Your task to perform on an android device: Go to Reddit.com Image 0: 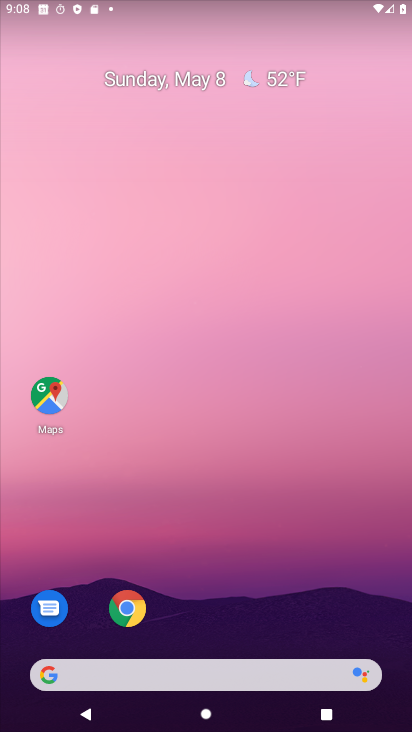
Step 0: drag from (351, 644) to (270, 38)
Your task to perform on an android device: Go to Reddit.com Image 1: 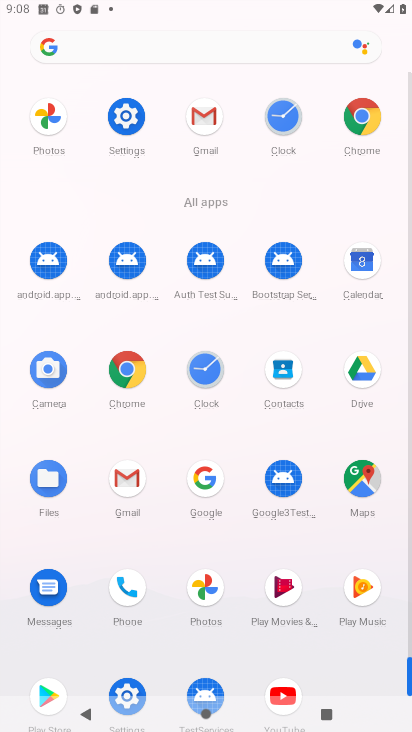
Step 1: click (127, 362)
Your task to perform on an android device: Go to Reddit.com Image 2: 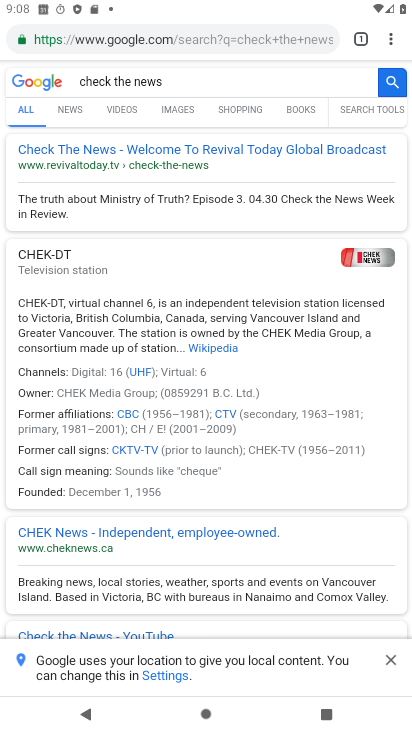
Step 2: click (229, 43)
Your task to perform on an android device: Go to Reddit.com Image 3: 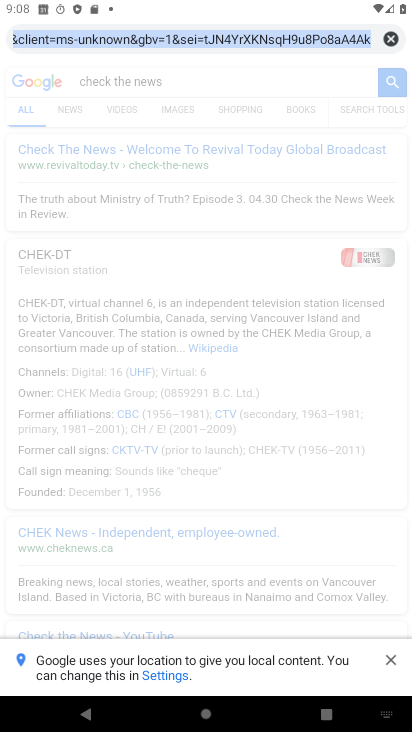
Step 3: click (382, 36)
Your task to perform on an android device: Go to Reddit.com Image 4: 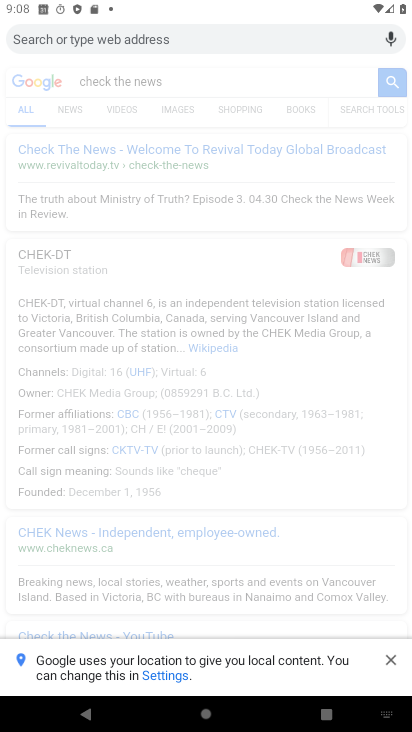
Step 4: type "reddit.com"
Your task to perform on an android device: Go to Reddit.com Image 5: 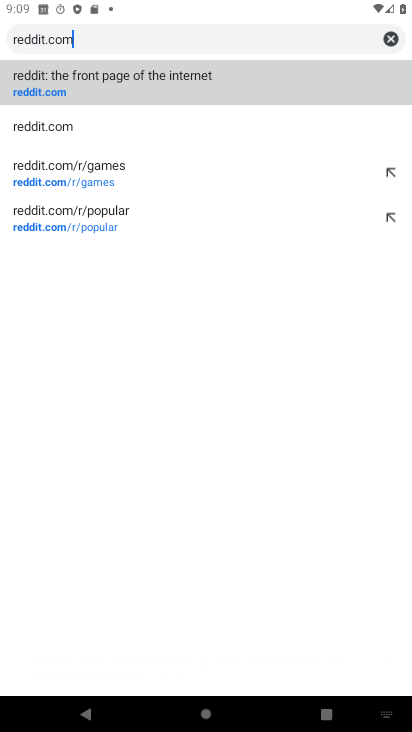
Step 5: click (227, 87)
Your task to perform on an android device: Go to Reddit.com Image 6: 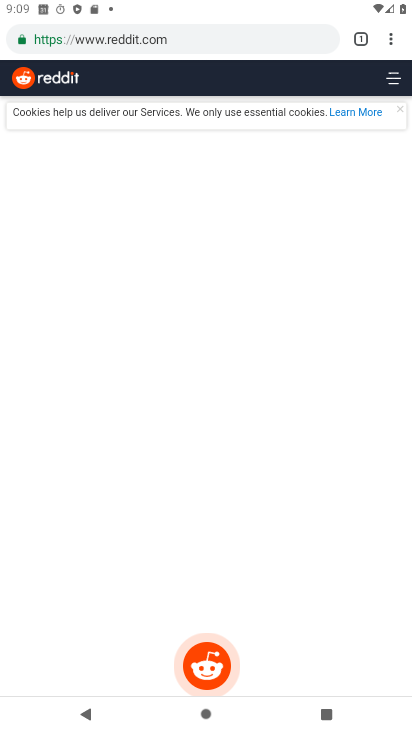
Step 6: task complete